Your task to perform on an android device: Open eBay Image 0: 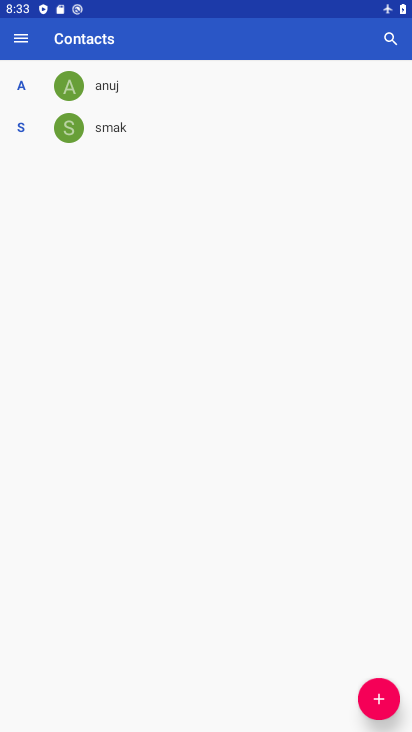
Step 0: press home button
Your task to perform on an android device: Open eBay Image 1: 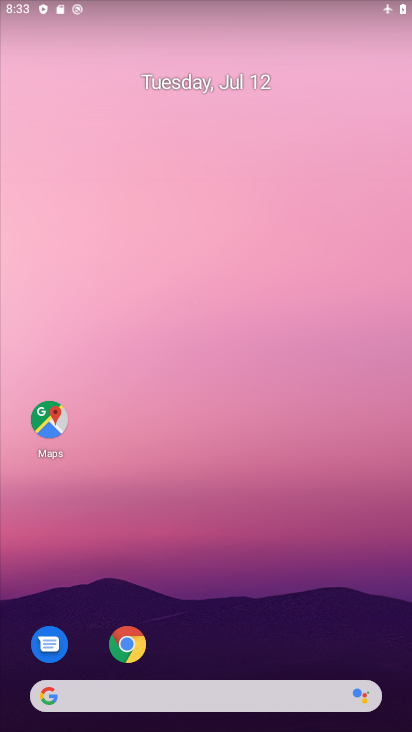
Step 1: click (146, 646)
Your task to perform on an android device: Open eBay Image 2: 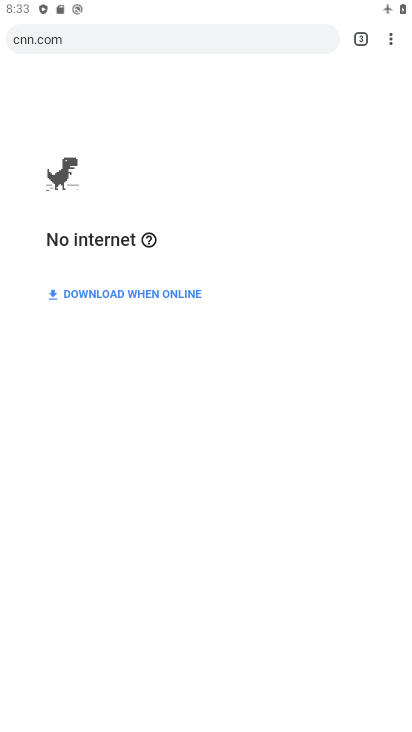
Step 2: click (360, 39)
Your task to perform on an android device: Open eBay Image 3: 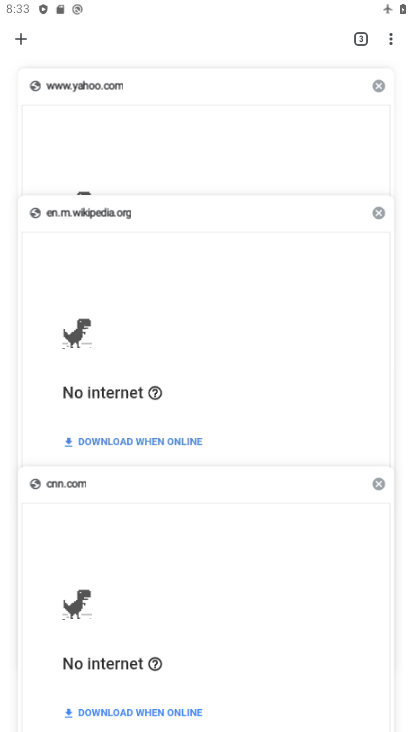
Step 3: click (13, 36)
Your task to perform on an android device: Open eBay Image 4: 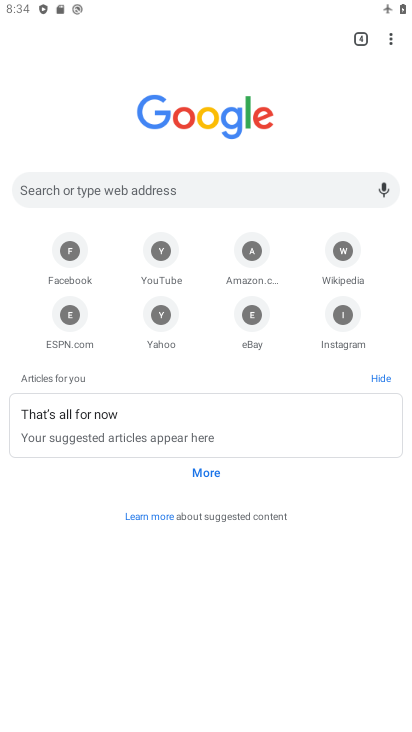
Step 4: click (247, 319)
Your task to perform on an android device: Open eBay Image 5: 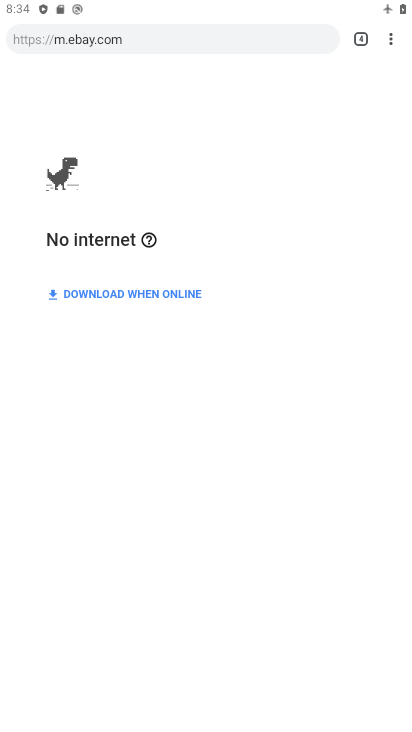
Step 5: task complete